Your task to perform on an android device: Open eBay Image 0: 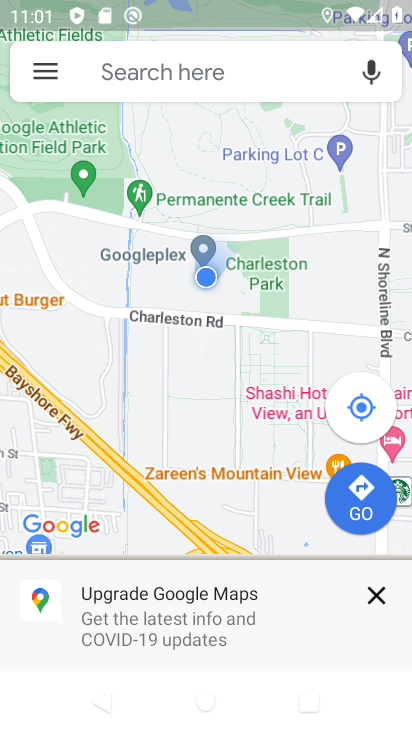
Step 0: press home button
Your task to perform on an android device: Open eBay Image 1: 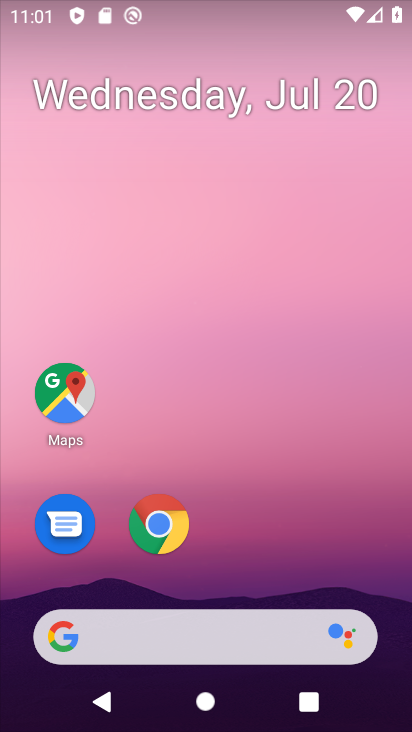
Step 1: click (147, 641)
Your task to perform on an android device: Open eBay Image 2: 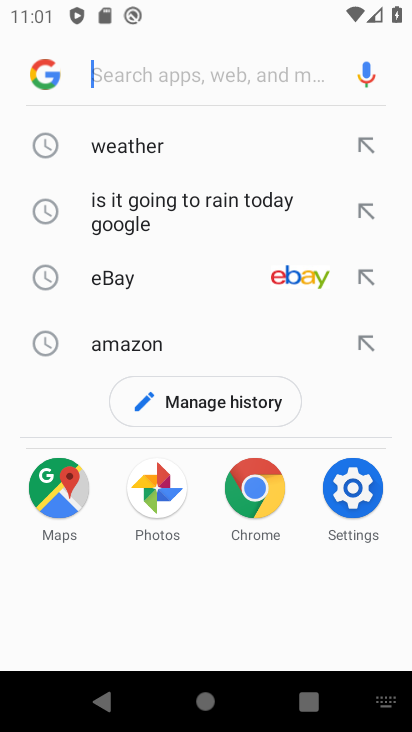
Step 2: click (308, 265)
Your task to perform on an android device: Open eBay Image 3: 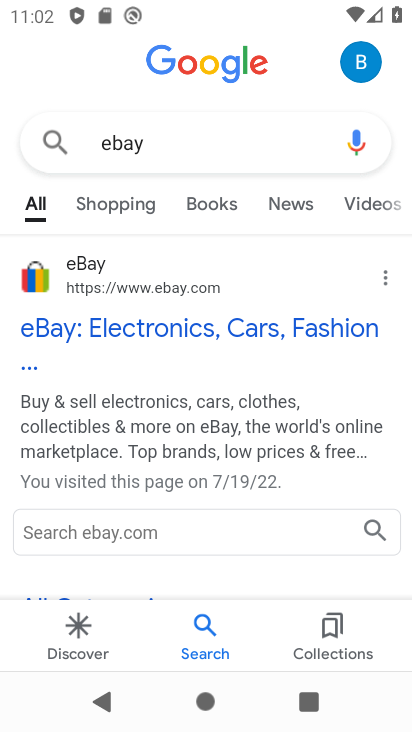
Step 3: click (53, 332)
Your task to perform on an android device: Open eBay Image 4: 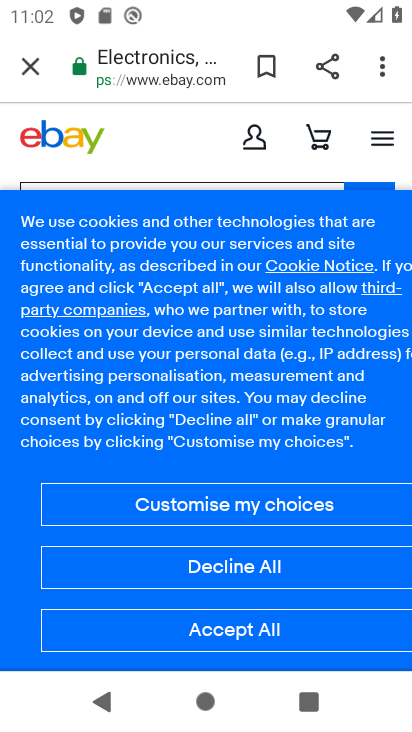
Step 4: drag from (305, 598) to (315, 447)
Your task to perform on an android device: Open eBay Image 5: 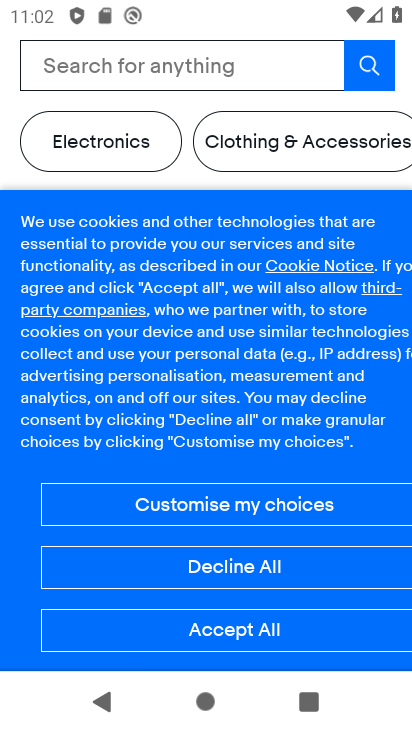
Step 5: click (283, 623)
Your task to perform on an android device: Open eBay Image 6: 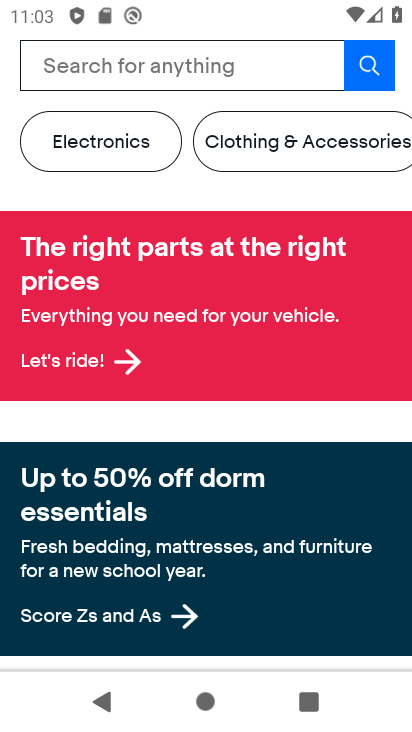
Step 6: task complete